Your task to perform on an android device: open app "Adobe Acrobat Reader" (install if not already installed) Image 0: 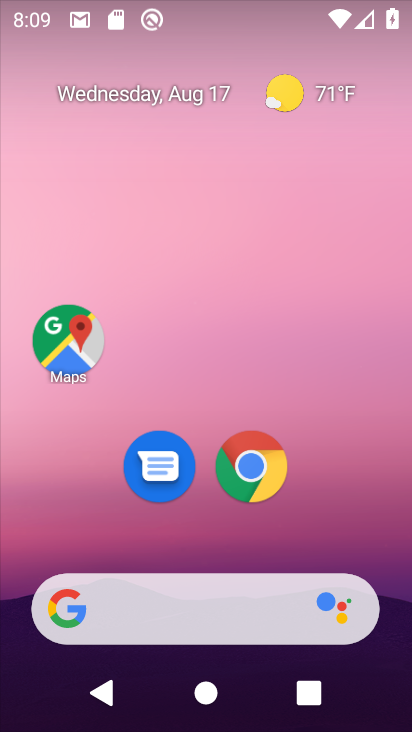
Step 0: drag from (196, 557) to (255, 7)
Your task to perform on an android device: open app "Adobe Acrobat Reader" (install if not already installed) Image 1: 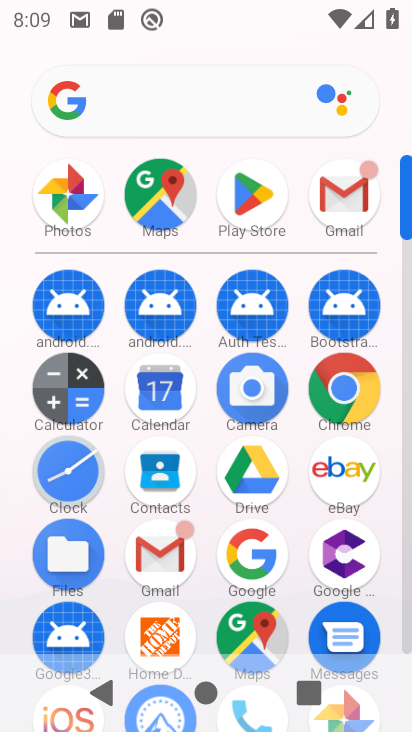
Step 1: click (258, 180)
Your task to perform on an android device: open app "Adobe Acrobat Reader" (install if not already installed) Image 2: 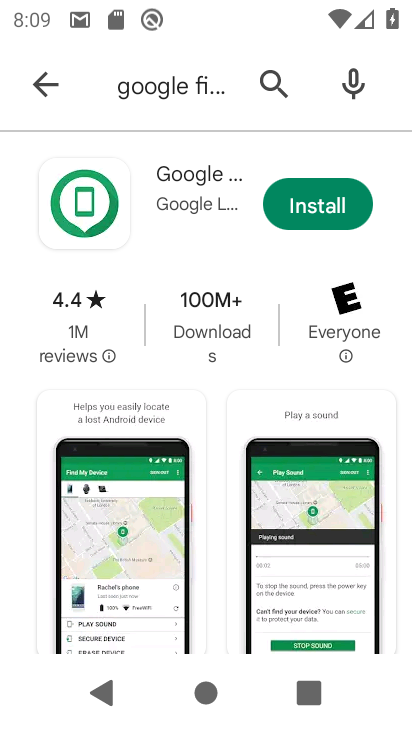
Step 2: click (184, 103)
Your task to perform on an android device: open app "Adobe Acrobat Reader" (install if not already installed) Image 3: 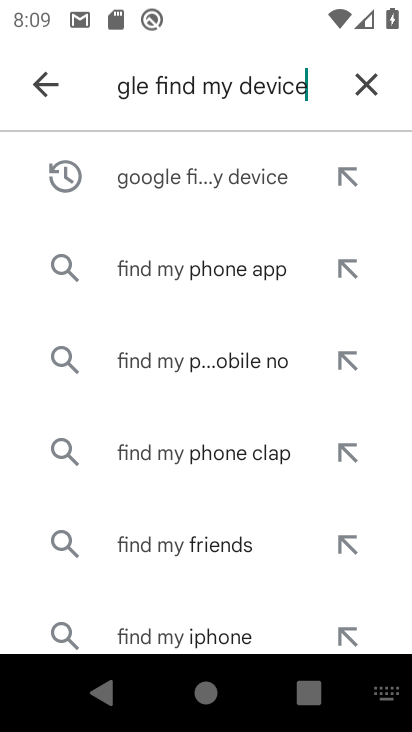
Step 3: click (370, 83)
Your task to perform on an android device: open app "Adobe Acrobat Reader" (install if not already installed) Image 4: 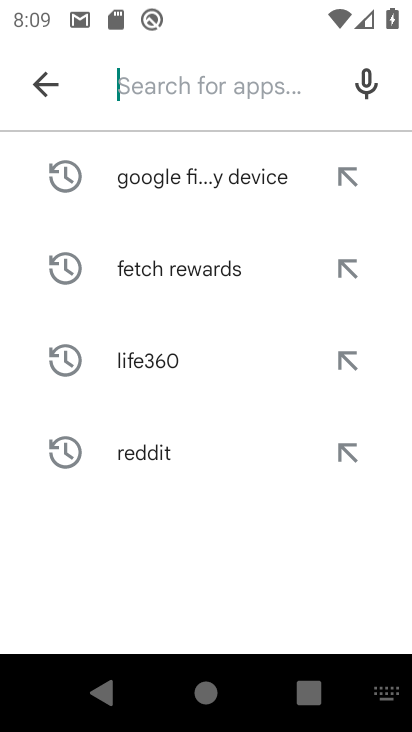
Step 4: type "Adobe Acrobat reader"
Your task to perform on an android device: open app "Adobe Acrobat Reader" (install if not already installed) Image 5: 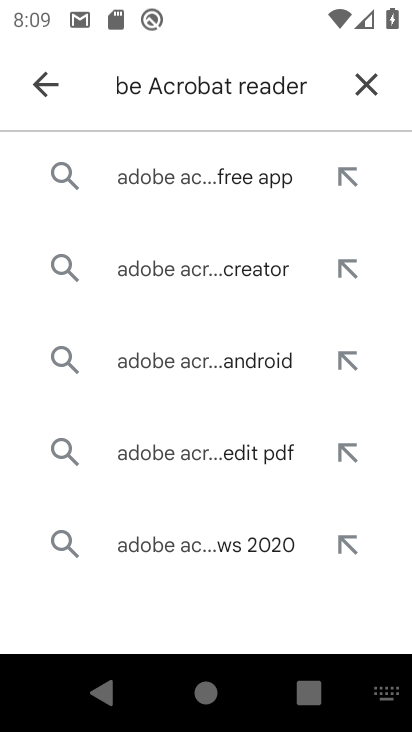
Step 5: click (229, 197)
Your task to perform on an android device: open app "Adobe Acrobat Reader" (install if not already installed) Image 6: 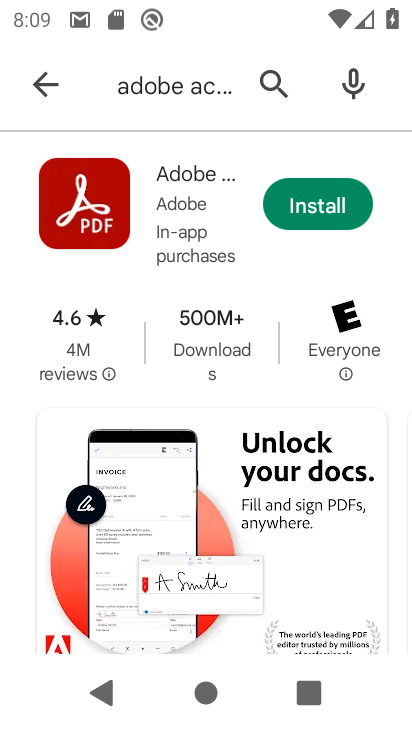
Step 6: click (319, 213)
Your task to perform on an android device: open app "Adobe Acrobat Reader" (install if not already installed) Image 7: 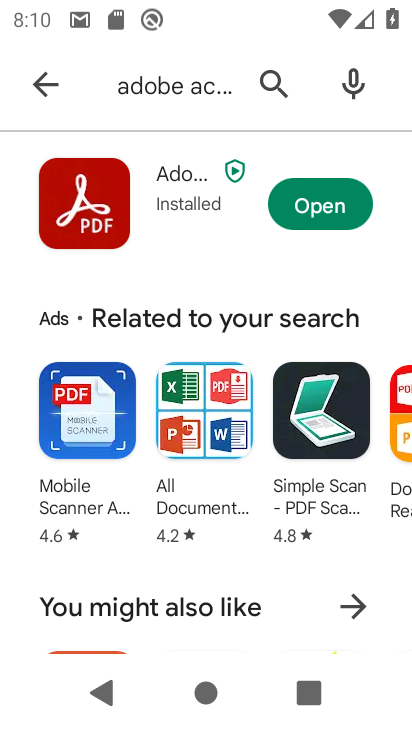
Step 7: click (304, 216)
Your task to perform on an android device: open app "Adobe Acrobat Reader" (install if not already installed) Image 8: 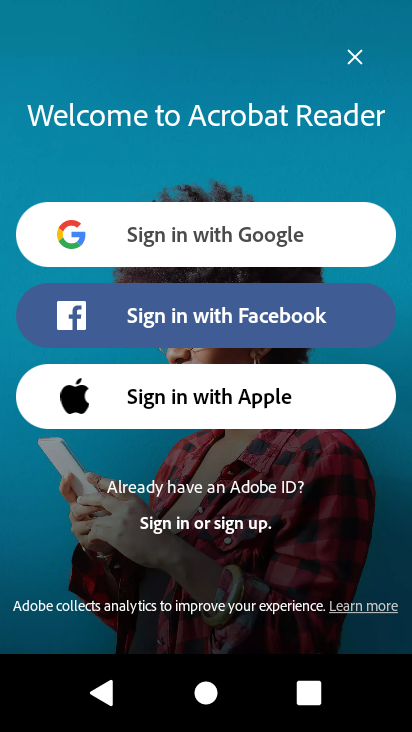
Step 8: click (300, 239)
Your task to perform on an android device: open app "Adobe Acrobat Reader" (install if not already installed) Image 9: 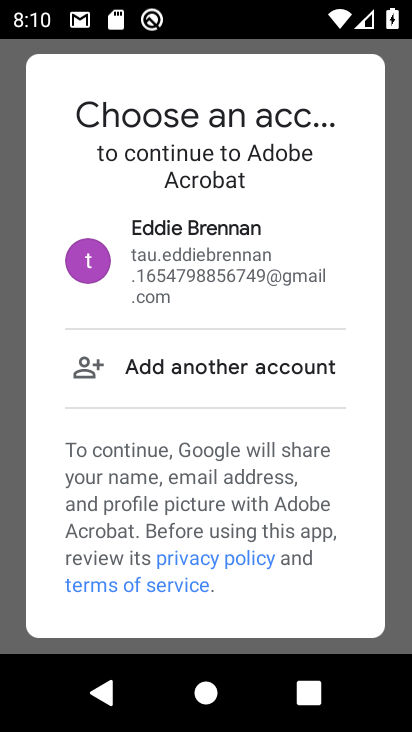
Step 9: click (228, 282)
Your task to perform on an android device: open app "Adobe Acrobat Reader" (install if not already installed) Image 10: 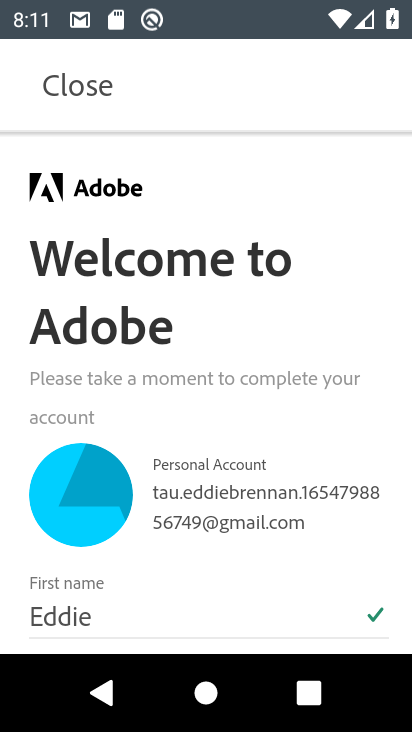
Step 10: drag from (219, 463) to (239, 220)
Your task to perform on an android device: open app "Adobe Acrobat Reader" (install if not already installed) Image 11: 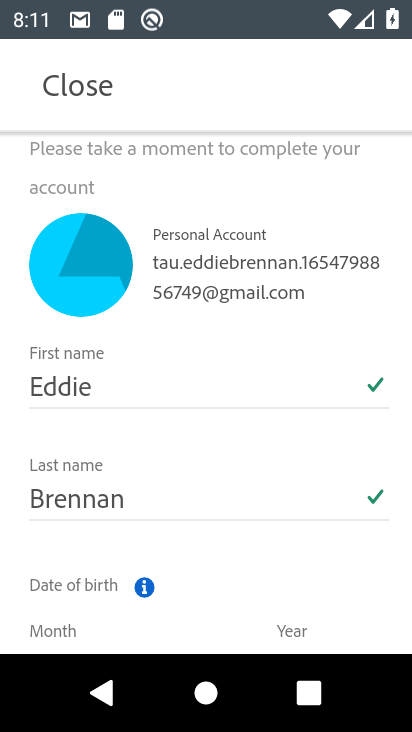
Step 11: drag from (216, 514) to (256, 95)
Your task to perform on an android device: open app "Adobe Acrobat Reader" (install if not already installed) Image 12: 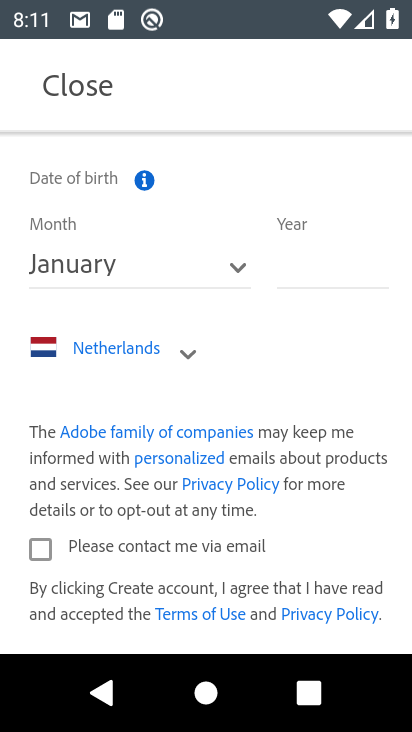
Step 12: click (310, 274)
Your task to perform on an android device: open app "Adobe Acrobat Reader" (install if not already installed) Image 13: 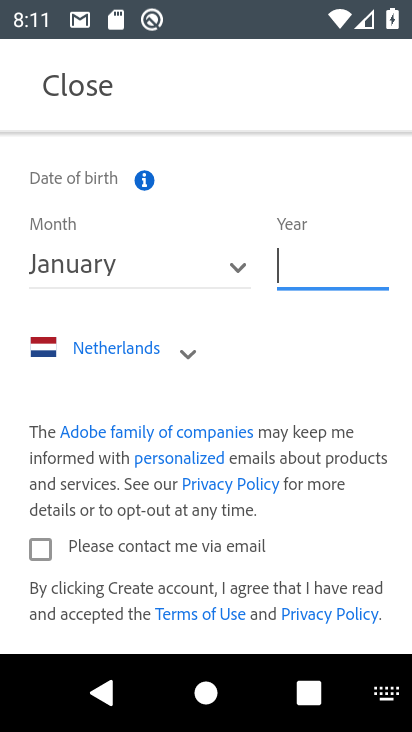
Step 13: type "1988"
Your task to perform on an android device: open app "Adobe Acrobat Reader" (install if not already installed) Image 14: 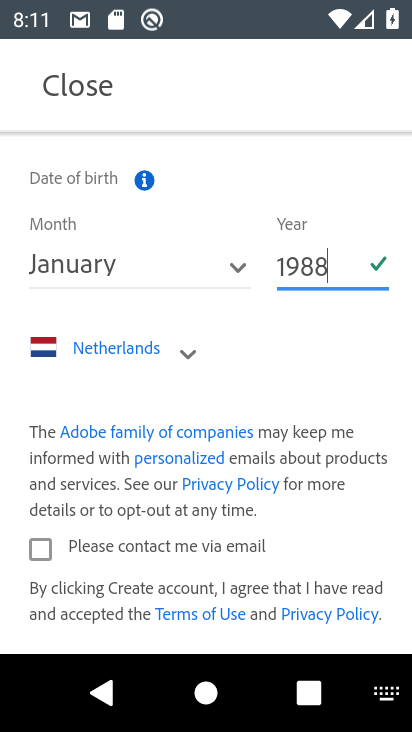
Step 14: click (50, 543)
Your task to perform on an android device: open app "Adobe Acrobat Reader" (install if not already installed) Image 15: 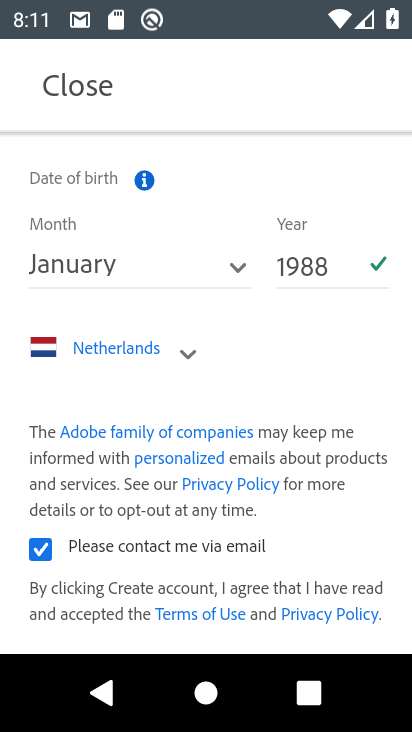
Step 15: drag from (192, 506) to (244, 51)
Your task to perform on an android device: open app "Adobe Acrobat Reader" (install if not already installed) Image 16: 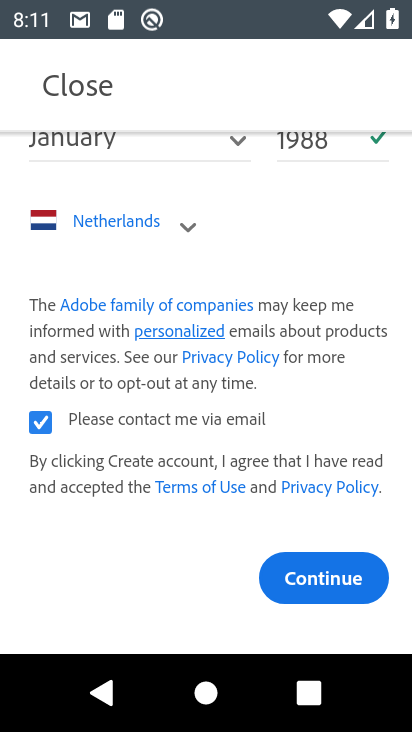
Step 16: click (337, 583)
Your task to perform on an android device: open app "Adobe Acrobat Reader" (install if not already installed) Image 17: 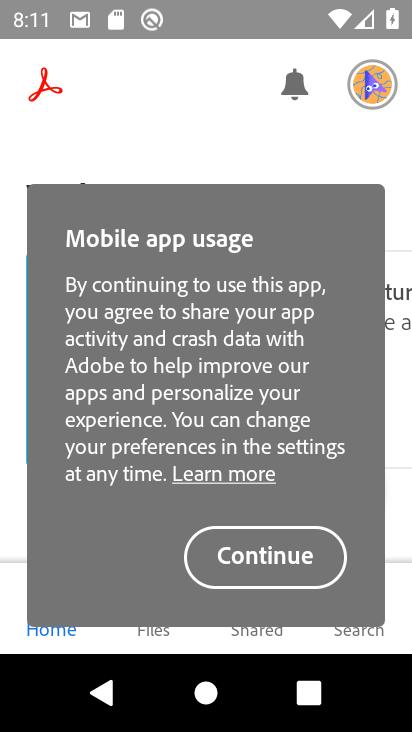
Step 17: click (264, 556)
Your task to perform on an android device: open app "Adobe Acrobat Reader" (install if not already installed) Image 18: 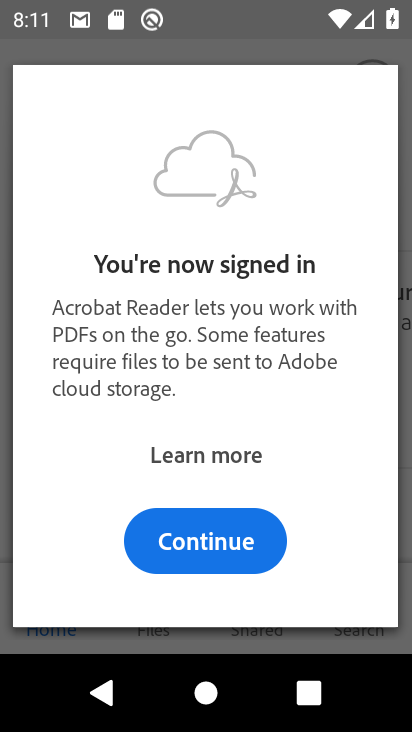
Step 18: click (250, 534)
Your task to perform on an android device: open app "Adobe Acrobat Reader" (install if not already installed) Image 19: 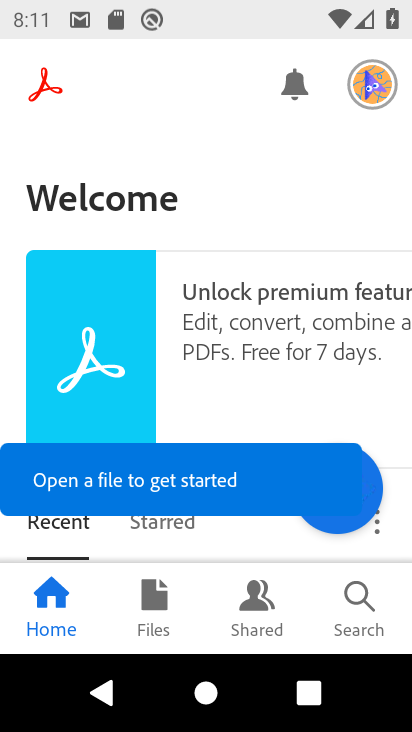
Step 19: task complete